Your task to perform on an android device: turn on sleep mode Image 0: 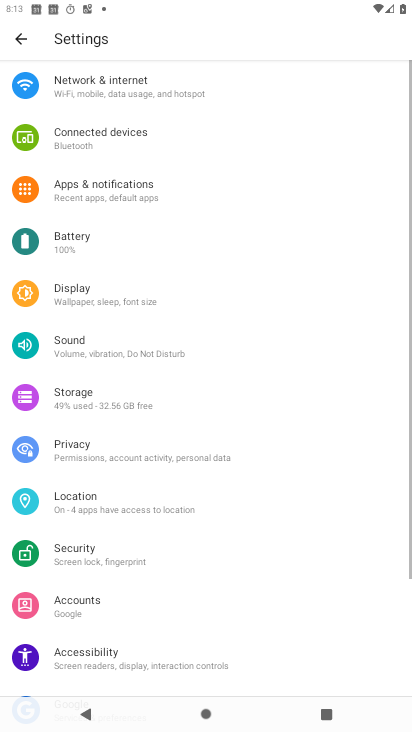
Step 0: click (83, 297)
Your task to perform on an android device: turn on sleep mode Image 1: 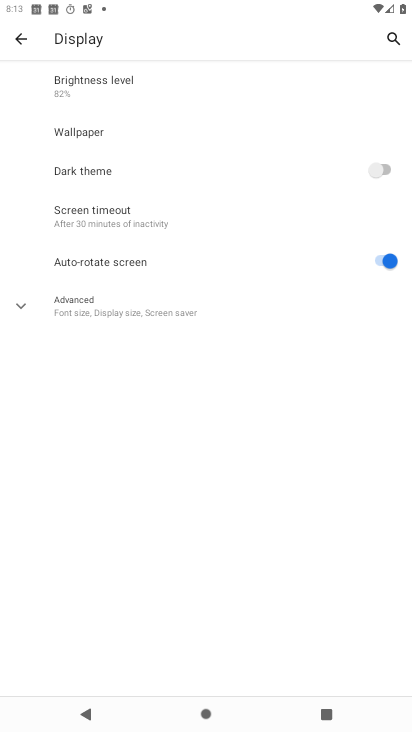
Step 1: click (23, 312)
Your task to perform on an android device: turn on sleep mode Image 2: 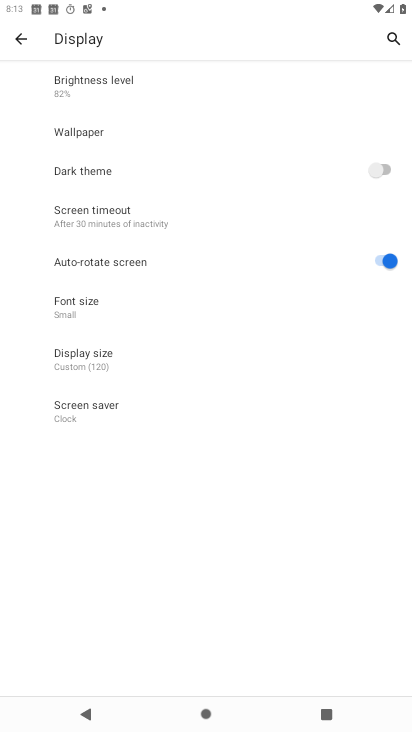
Step 2: task complete